Your task to perform on an android device: turn pop-ups on in chrome Image 0: 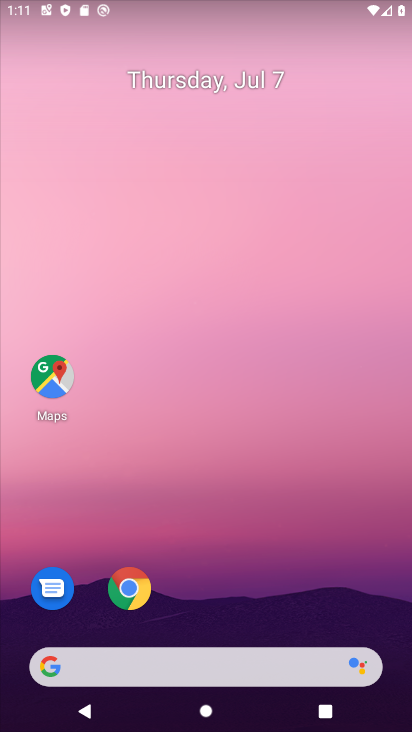
Step 0: drag from (270, 619) to (253, 180)
Your task to perform on an android device: turn pop-ups on in chrome Image 1: 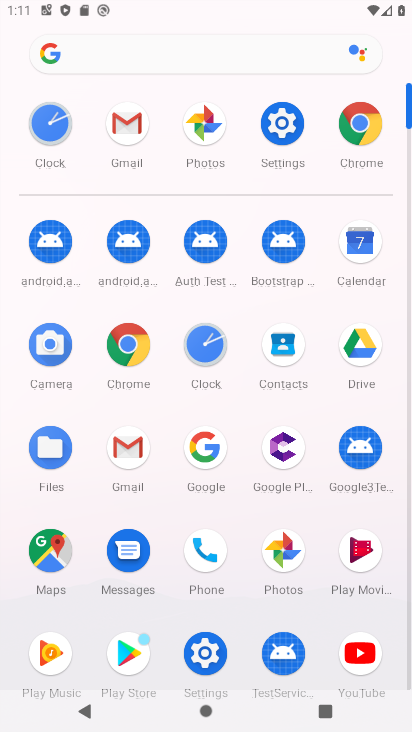
Step 1: click (370, 128)
Your task to perform on an android device: turn pop-ups on in chrome Image 2: 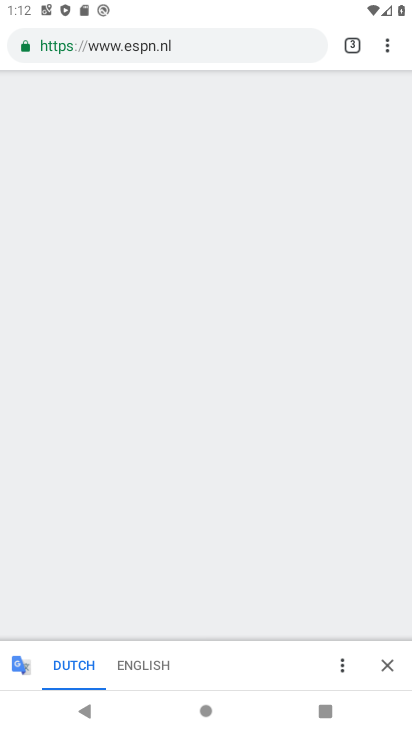
Step 2: click (392, 45)
Your task to perform on an android device: turn pop-ups on in chrome Image 3: 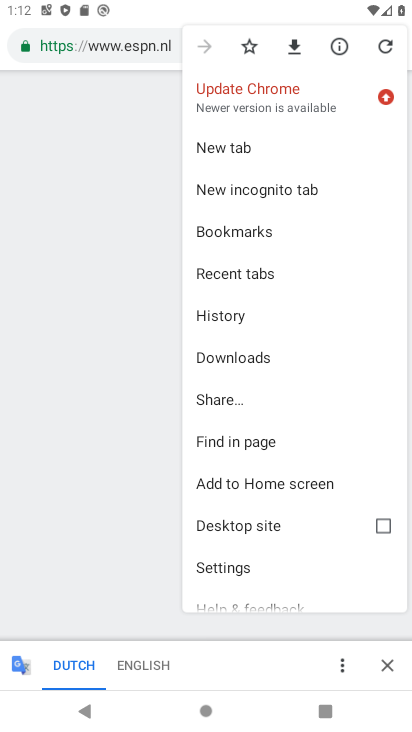
Step 3: click (237, 564)
Your task to perform on an android device: turn pop-ups on in chrome Image 4: 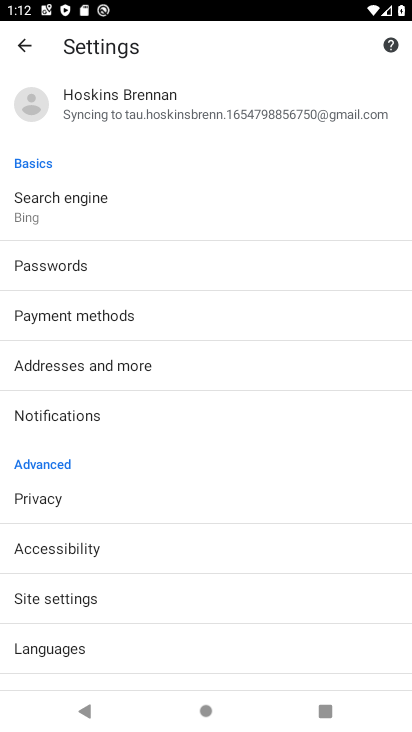
Step 4: drag from (144, 610) to (157, 314)
Your task to perform on an android device: turn pop-ups on in chrome Image 5: 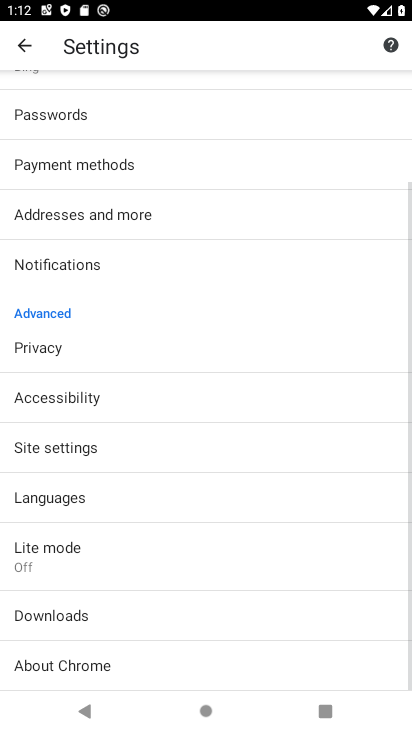
Step 5: click (127, 446)
Your task to perform on an android device: turn pop-ups on in chrome Image 6: 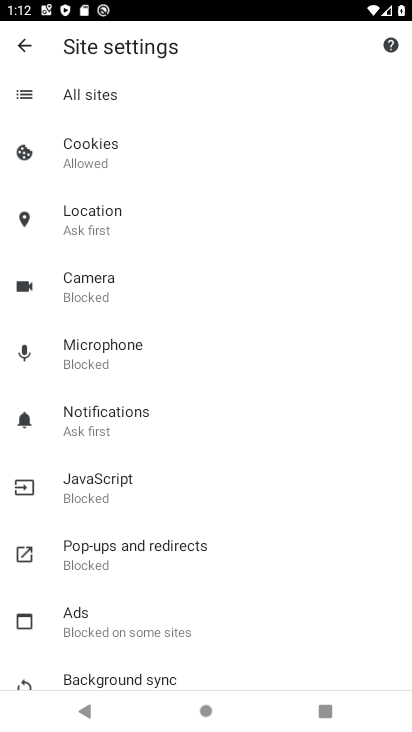
Step 6: click (172, 557)
Your task to perform on an android device: turn pop-ups on in chrome Image 7: 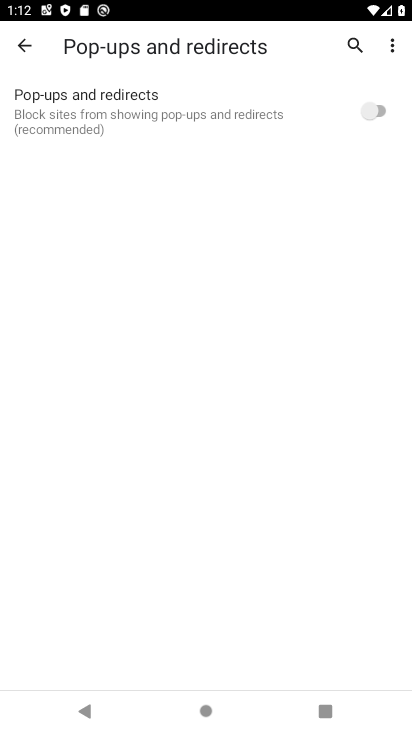
Step 7: click (369, 108)
Your task to perform on an android device: turn pop-ups on in chrome Image 8: 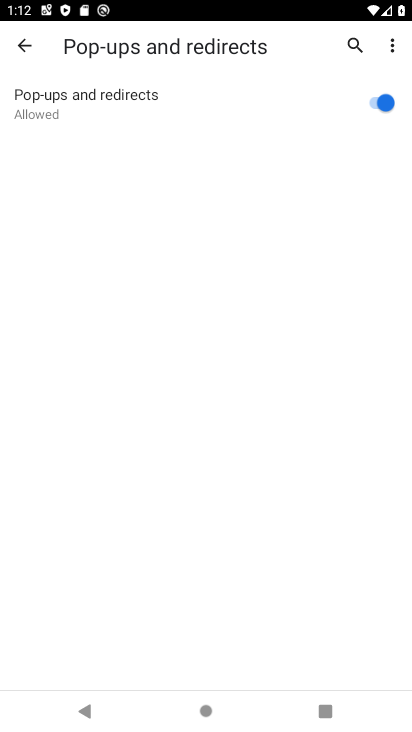
Step 8: task complete